Your task to perform on an android device: Show me the alarms in the clock app Image 0: 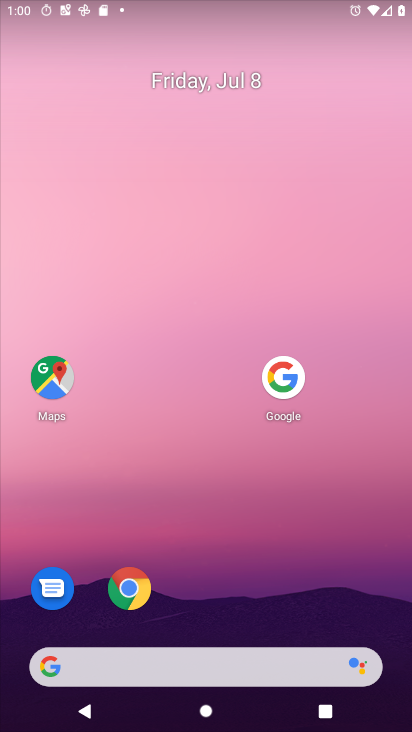
Step 0: drag from (156, 658) to (280, 85)
Your task to perform on an android device: Show me the alarms in the clock app Image 1: 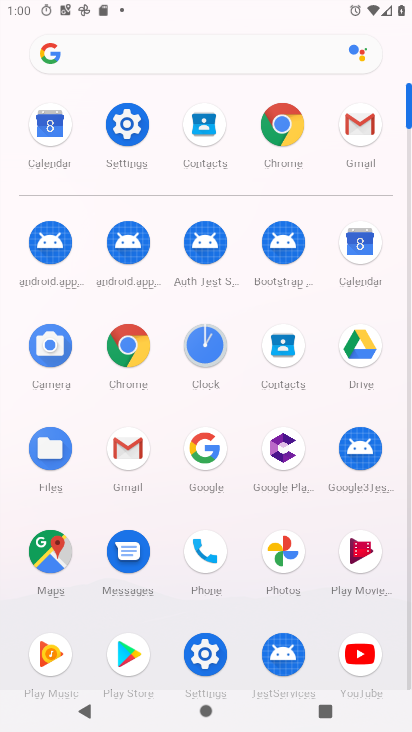
Step 1: click (211, 349)
Your task to perform on an android device: Show me the alarms in the clock app Image 2: 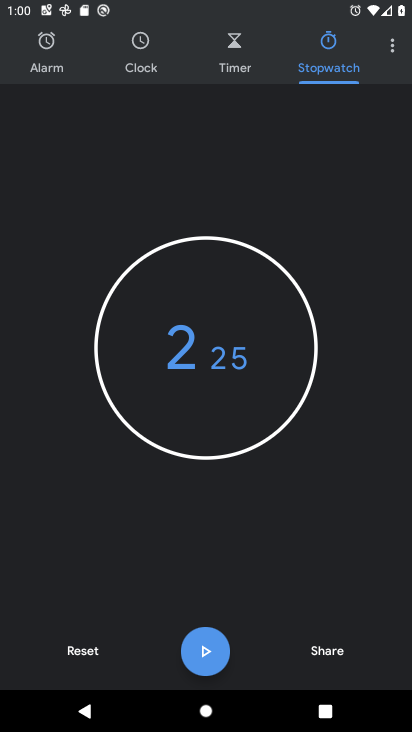
Step 2: click (46, 57)
Your task to perform on an android device: Show me the alarms in the clock app Image 3: 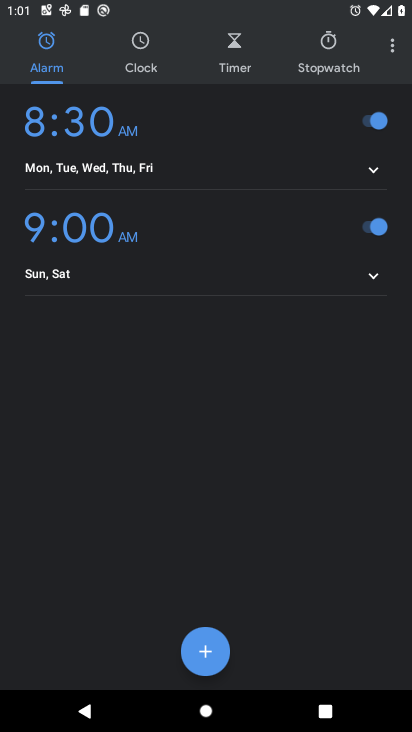
Step 3: task complete